Your task to perform on an android device: empty trash in the gmail app Image 0: 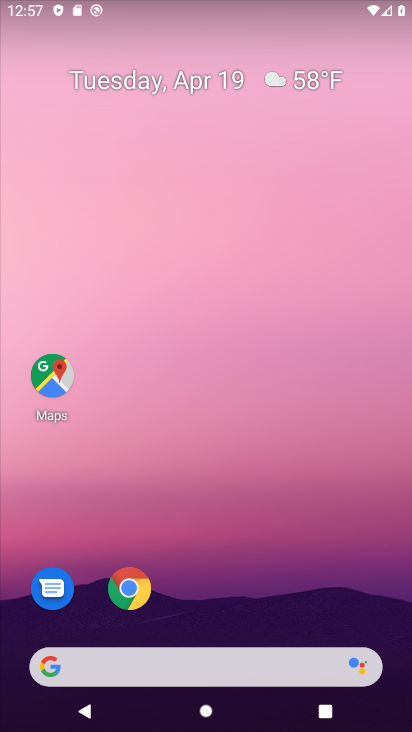
Step 0: press home button
Your task to perform on an android device: empty trash in the gmail app Image 1: 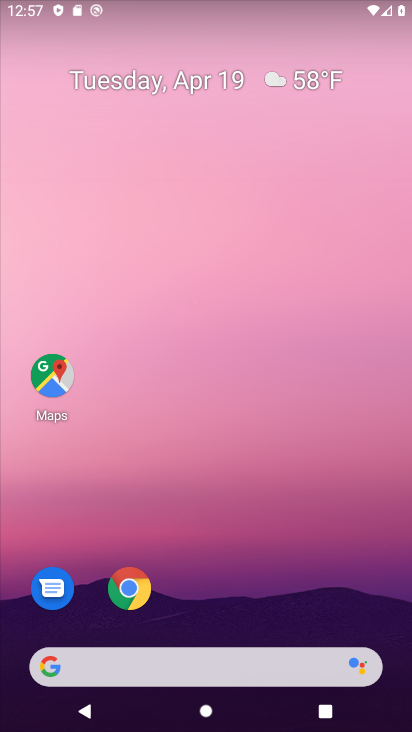
Step 1: drag from (217, 604) to (238, 223)
Your task to perform on an android device: empty trash in the gmail app Image 2: 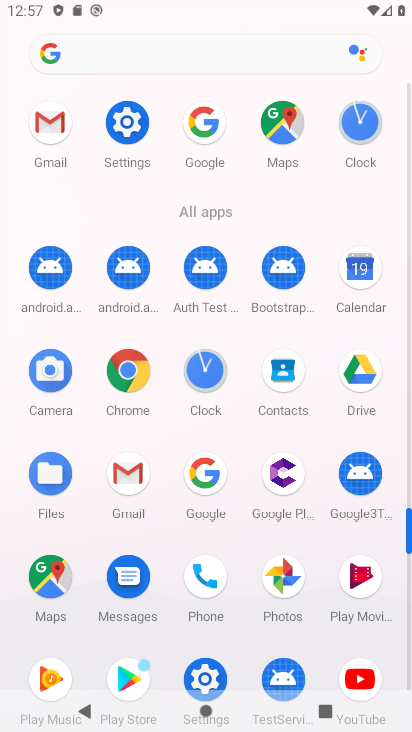
Step 2: click (36, 124)
Your task to perform on an android device: empty trash in the gmail app Image 3: 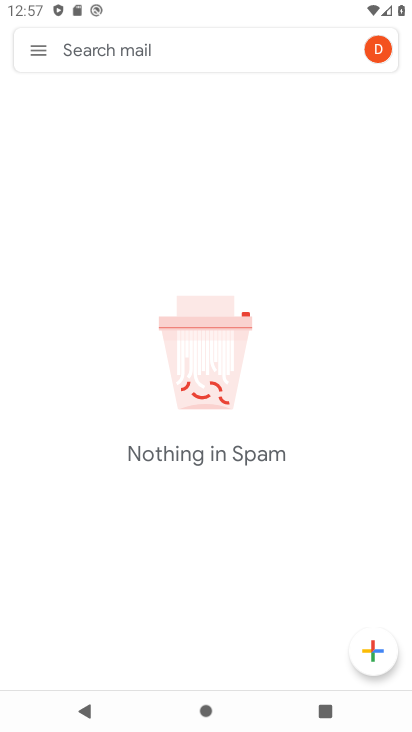
Step 3: click (40, 52)
Your task to perform on an android device: empty trash in the gmail app Image 4: 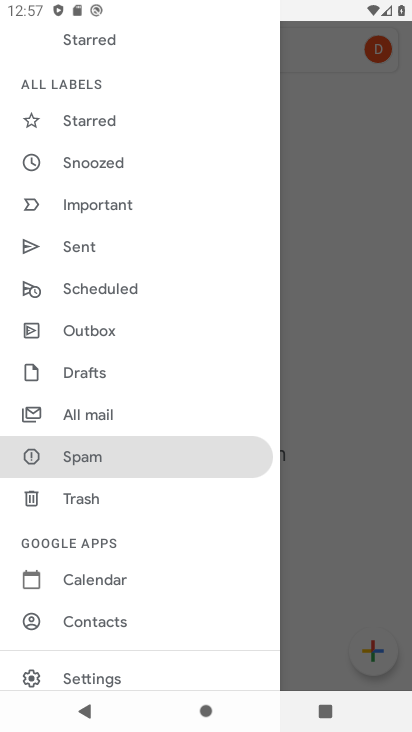
Step 4: click (74, 501)
Your task to perform on an android device: empty trash in the gmail app Image 5: 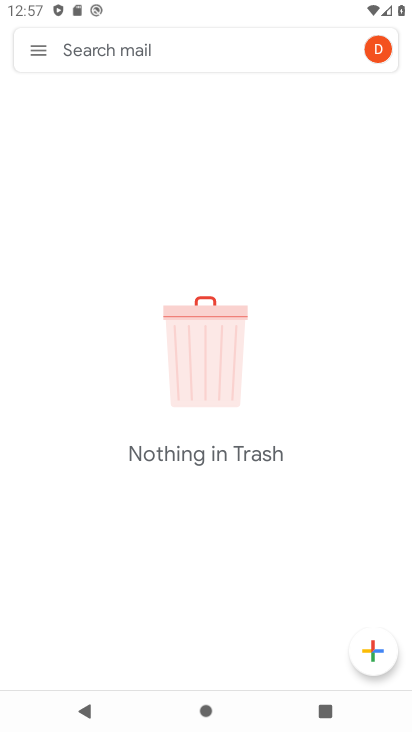
Step 5: task complete